Your task to perform on an android device: turn off improve location accuracy Image 0: 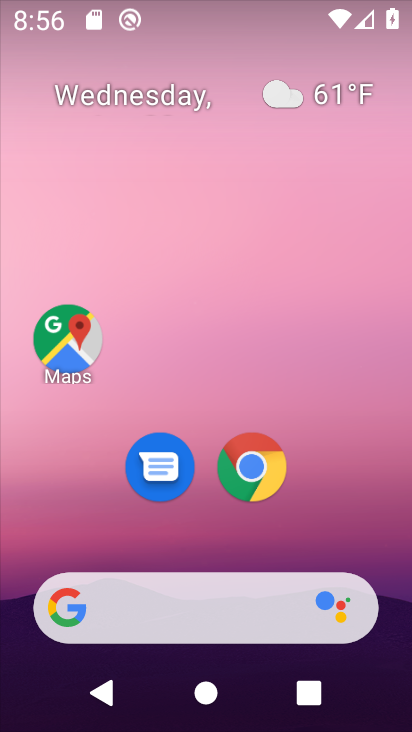
Step 0: drag from (354, 490) to (324, 84)
Your task to perform on an android device: turn off improve location accuracy Image 1: 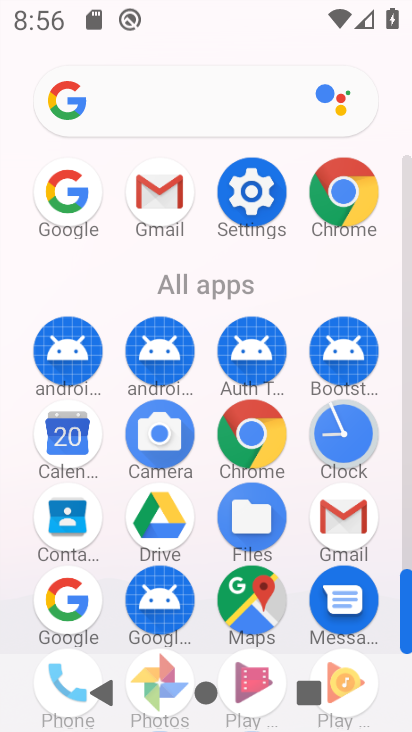
Step 1: click (248, 205)
Your task to perform on an android device: turn off improve location accuracy Image 2: 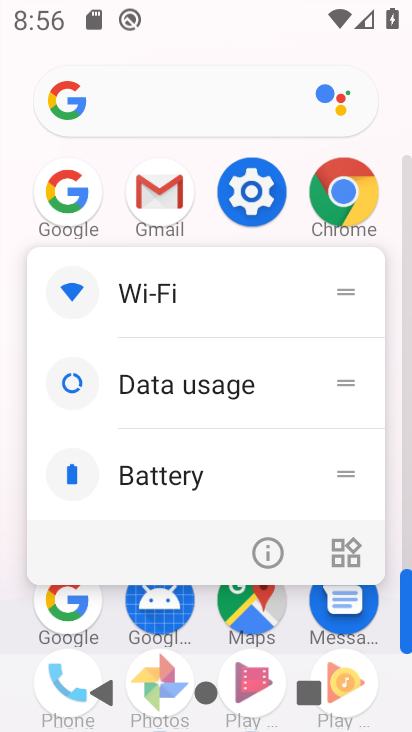
Step 2: click (248, 205)
Your task to perform on an android device: turn off improve location accuracy Image 3: 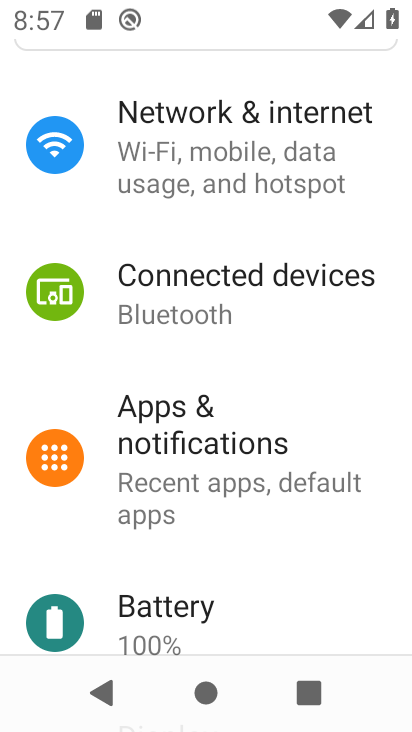
Step 3: drag from (271, 285) to (318, 556)
Your task to perform on an android device: turn off improve location accuracy Image 4: 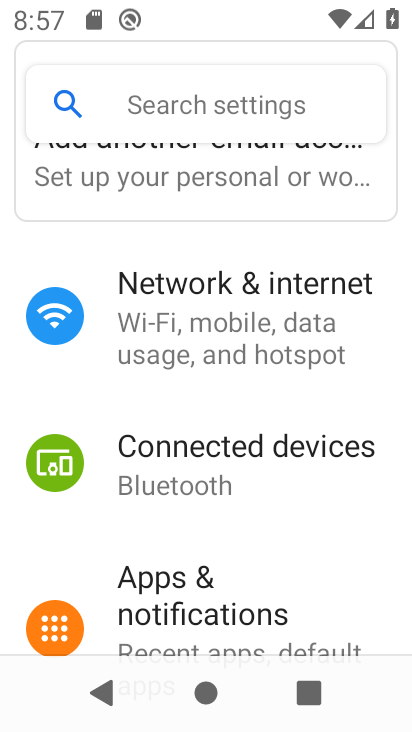
Step 4: drag from (288, 309) to (260, 530)
Your task to perform on an android device: turn off improve location accuracy Image 5: 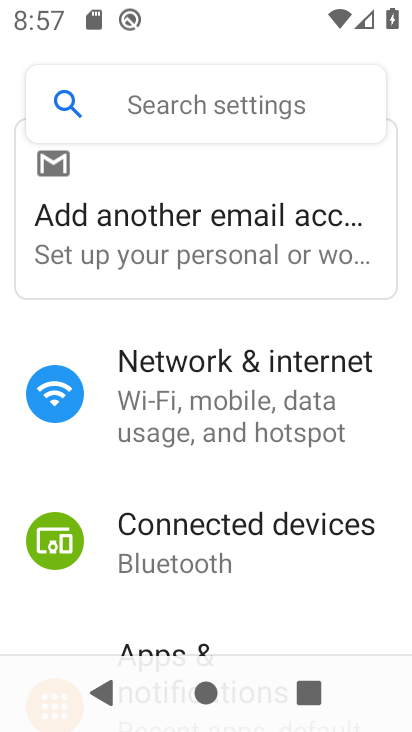
Step 5: drag from (241, 588) to (196, 275)
Your task to perform on an android device: turn off improve location accuracy Image 6: 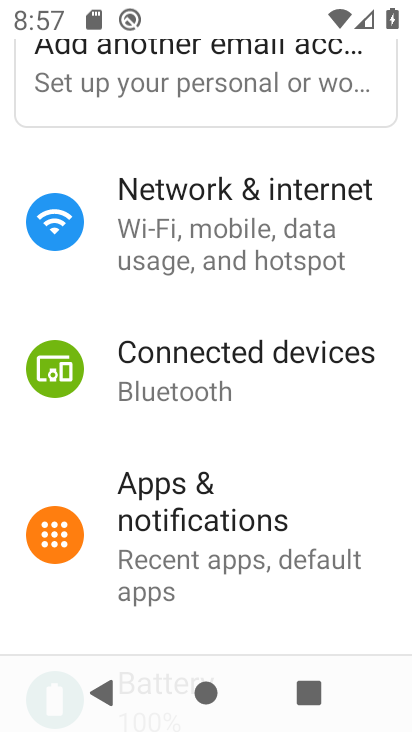
Step 6: drag from (251, 504) to (251, 234)
Your task to perform on an android device: turn off improve location accuracy Image 7: 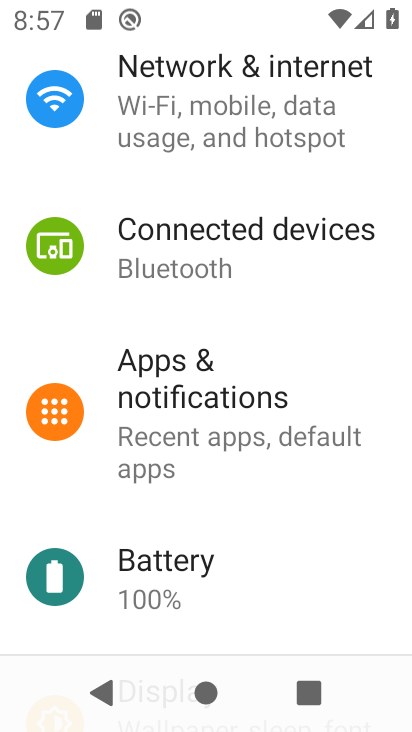
Step 7: drag from (207, 516) to (233, 212)
Your task to perform on an android device: turn off improve location accuracy Image 8: 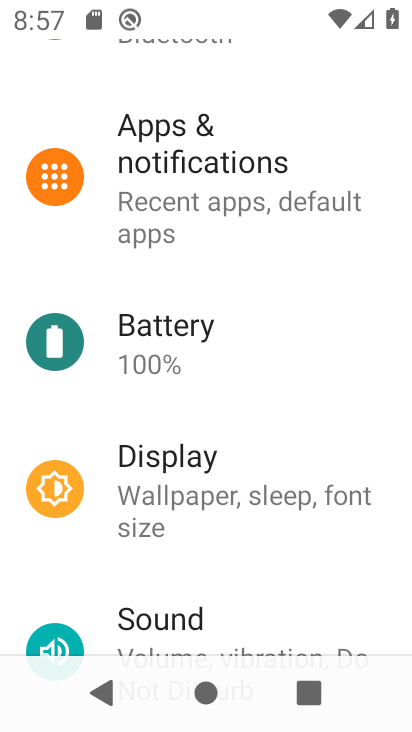
Step 8: drag from (201, 466) to (204, 151)
Your task to perform on an android device: turn off improve location accuracy Image 9: 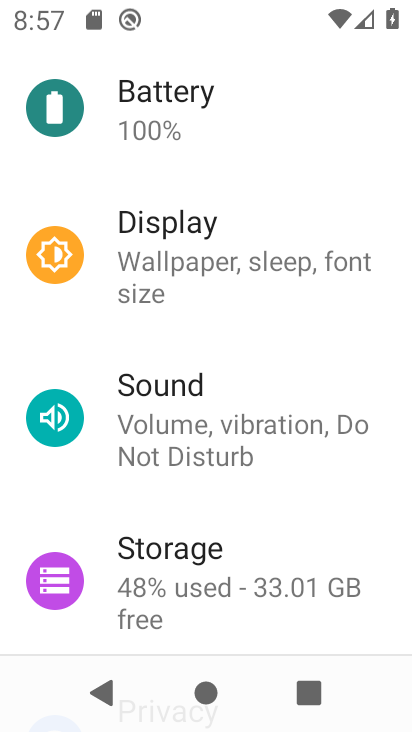
Step 9: drag from (260, 485) to (255, 148)
Your task to perform on an android device: turn off improve location accuracy Image 10: 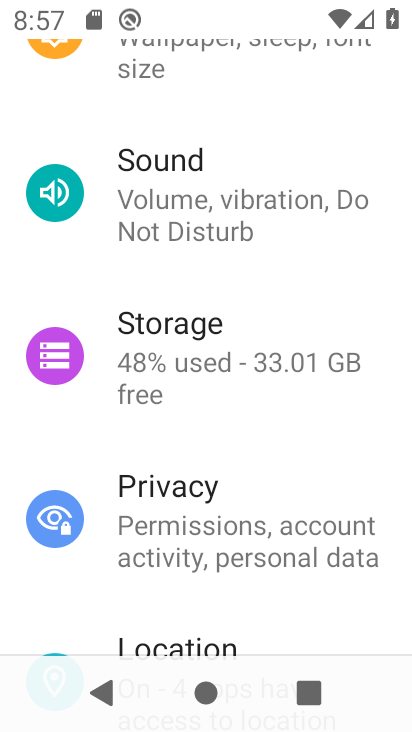
Step 10: drag from (247, 542) to (289, 206)
Your task to perform on an android device: turn off improve location accuracy Image 11: 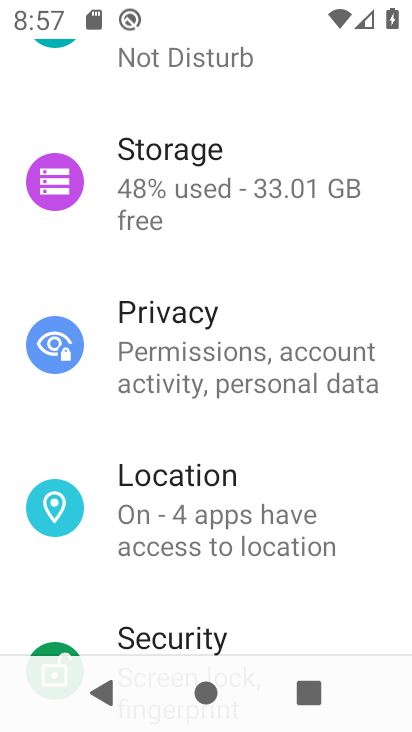
Step 11: click (206, 517)
Your task to perform on an android device: turn off improve location accuracy Image 12: 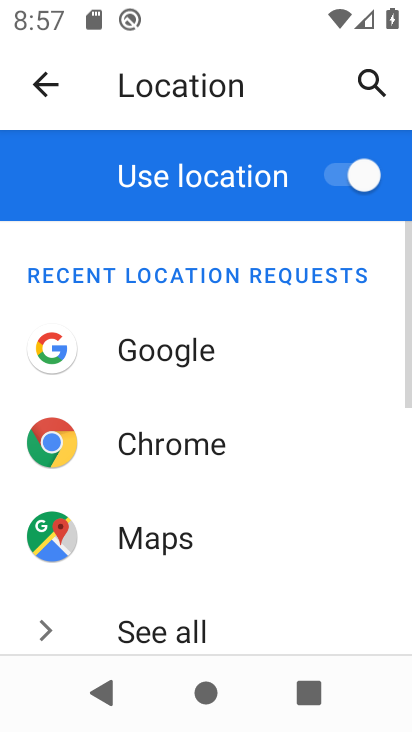
Step 12: drag from (210, 579) to (200, 252)
Your task to perform on an android device: turn off improve location accuracy Image 13: 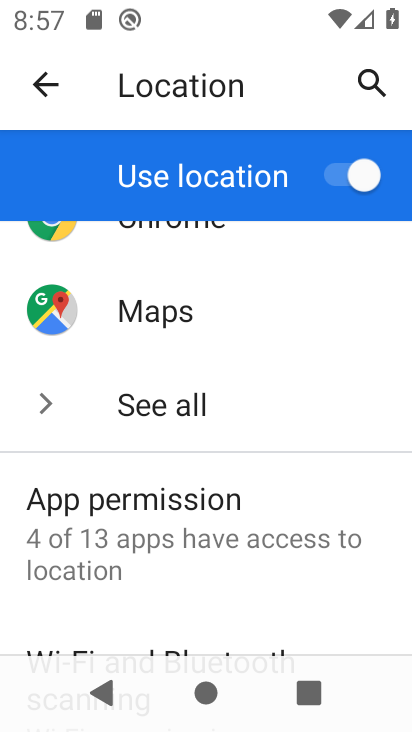
Step 13: drag from (235, 570) to (250, 280)
Your task to perform on an android device: turn off improve location accuracy Image 14: 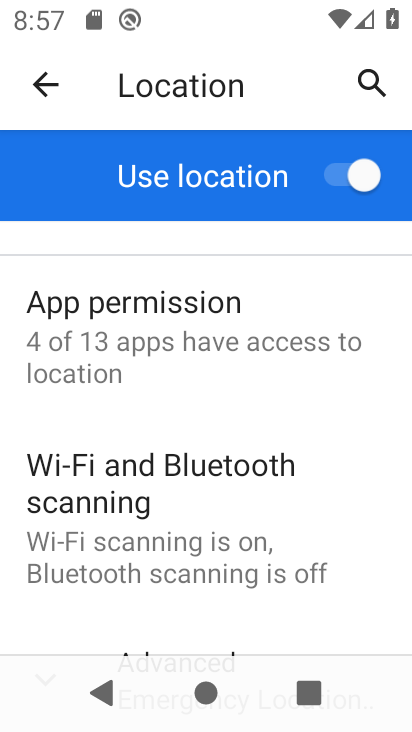
Step 14: drag from (185, 499) to (208, 310)
Your task to perform on an android device: turn off improve location accuracy Image 15: 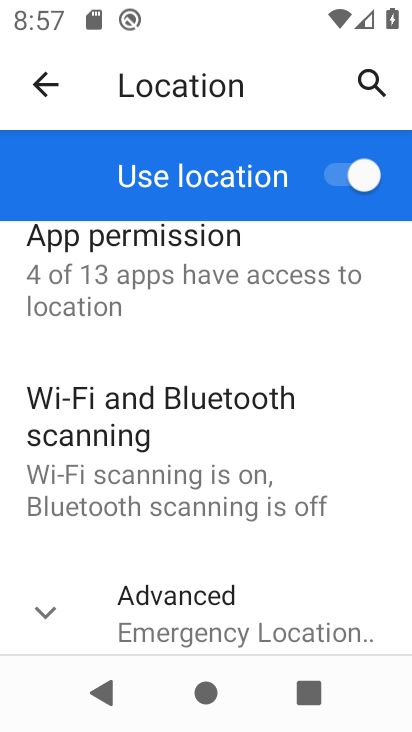
Step 15: drag from (191, 549) to (178, 333)
Your task to perform on an android device: turn off improve location accuracy Image 16: 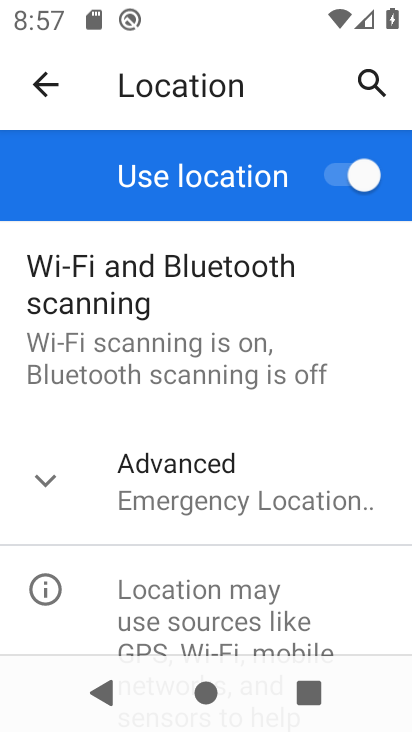
Step 16: click (213, 492)
Your task to perform on an android device: turn off improve location accuracy Image 17: 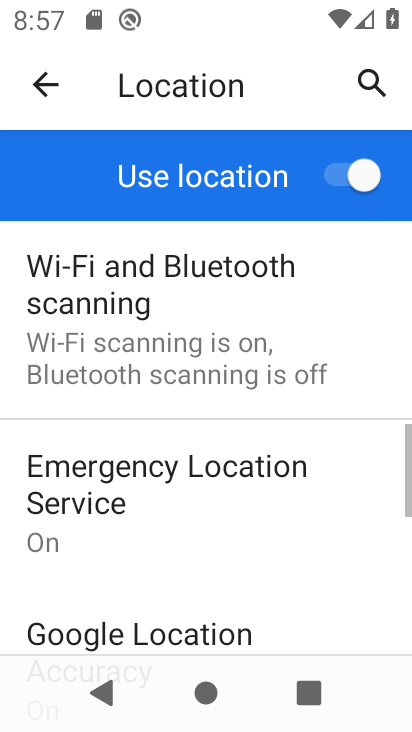
Step 17: drag from (203, 583) to (163, 303)
Your task to perform on an android device: turn off improve location accuracy Image 18: 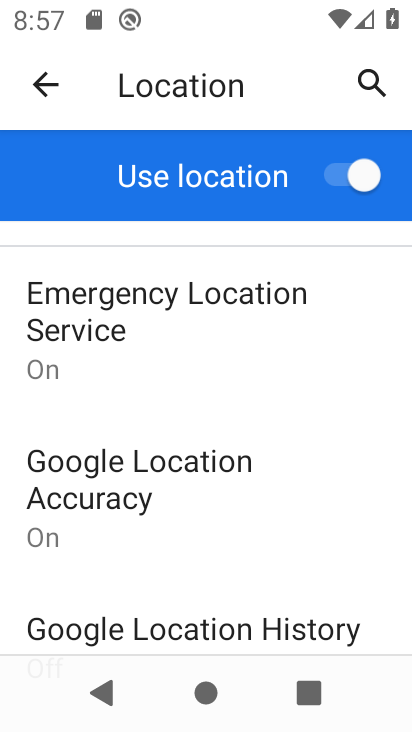
Step 18: click (172, 483)
Your task to perform on an android device: turn off improve location accuracy Image 19: 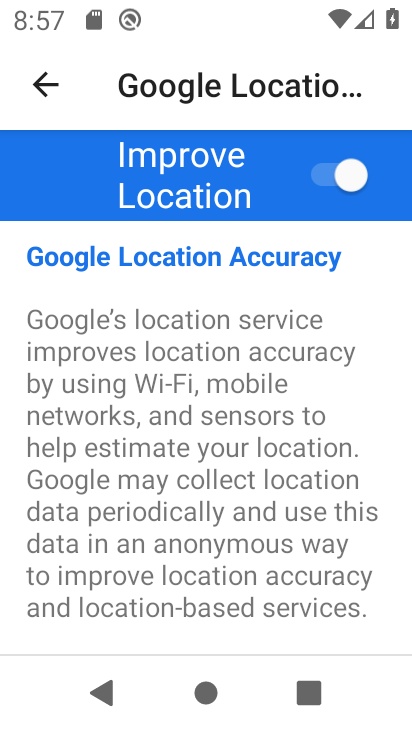
Step 19: click (326, 184)
Your task to perform on an android device: turn off improve location accuracy Image 20: 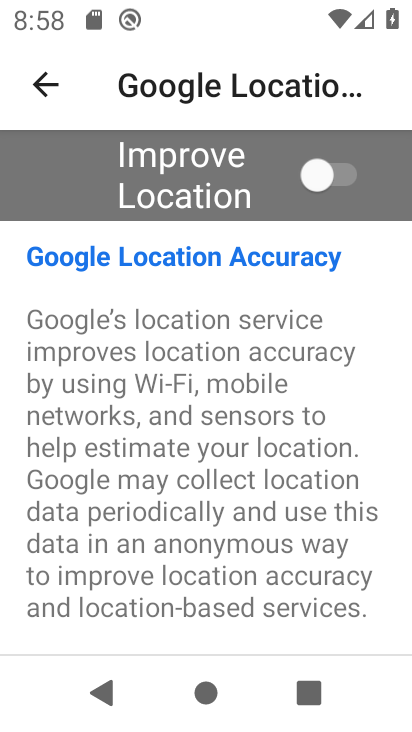
Step 20: task complete